Your task to perform on an android device: turn on improve location accuracy Image 0: 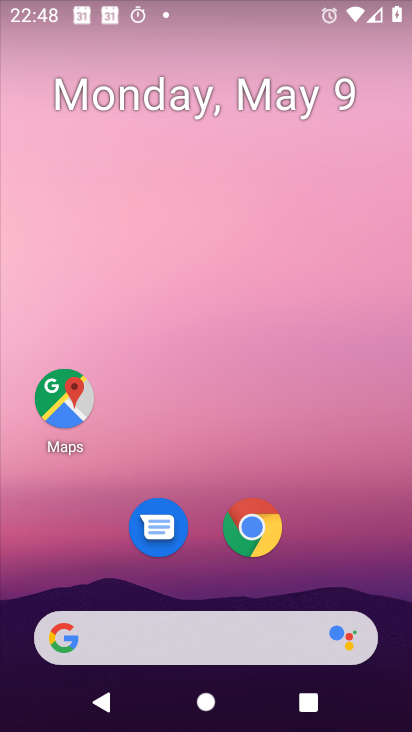
Step 0: drag from (203, 565) to (207, 101)
Your task to perform on an android device: turn on improve location accuracy Image 1: 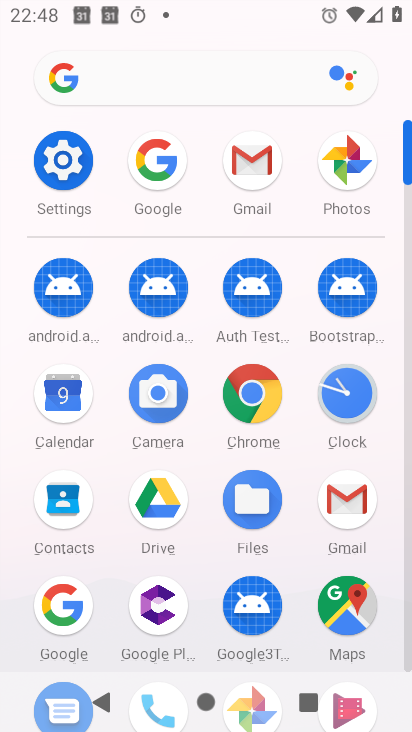
Step 1: click (69, 159)
Your task to perform on an android device: turn on improve location accuracy Image 2: 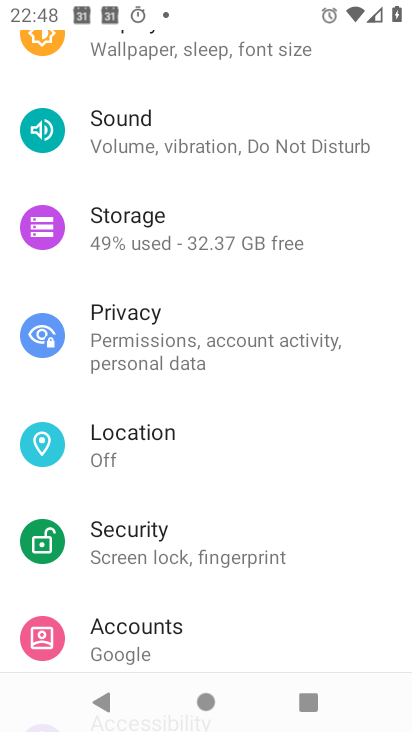
Step 2: click (149, 451)
Your task to perform on an android device: turn on improve location accuracy Image 3: 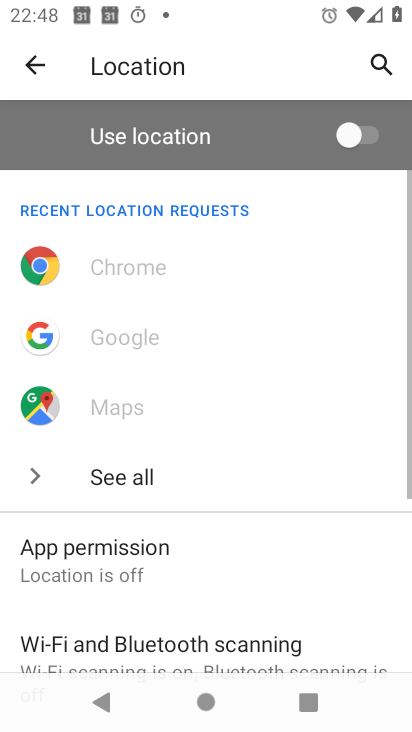
Step 3: drag from (225, 539) to (193, 47)
Your task to perform on an android device: turn on improve location accuracy Image 4: 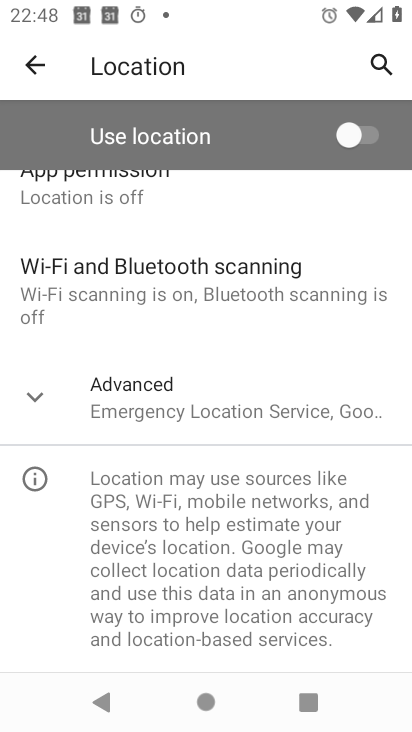
Step 4: click (106, 419)
Your task to perform on an android device: turn on improve location accuracy Image 5: 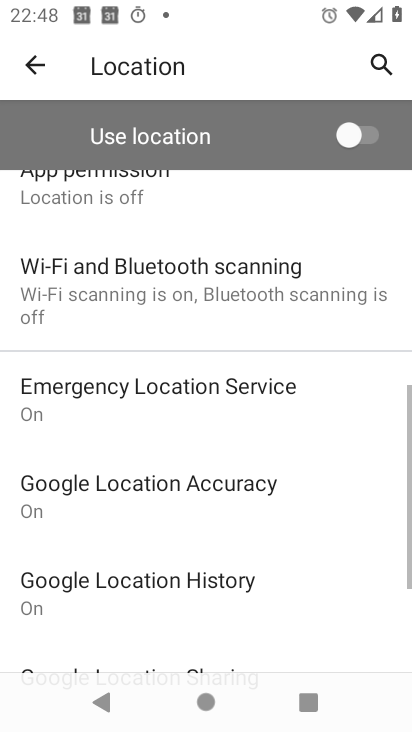
Step 5: task complete